Your task to perform on an android device: View the shopping cart on bestbuy.com. Search for "dell xps" on bestbuy.com, select the first entry, and add it to the cart. Image 0: 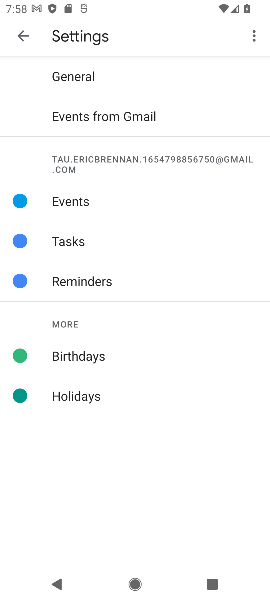
Step 0: task complete